Your task to perform on an android device: Open my contact list Image 0: 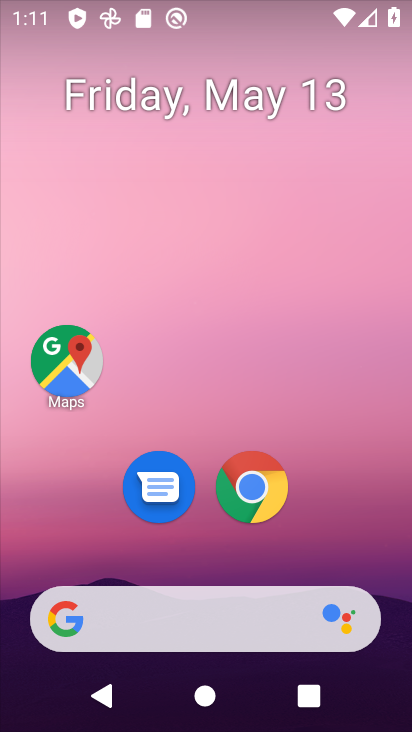
Step 0: drag from (370, 531) to (370, 81)
Your task to perform on an android device: Open my contact list Image 1: 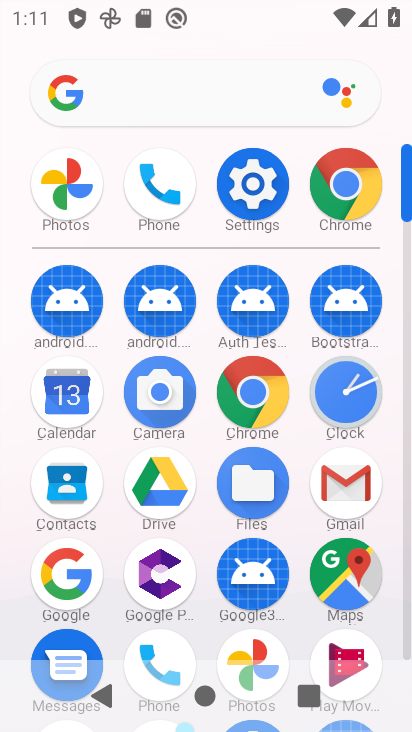
Step 1: click (67, 490)
Your task to perform on an android device: Open my contact list Image 2: 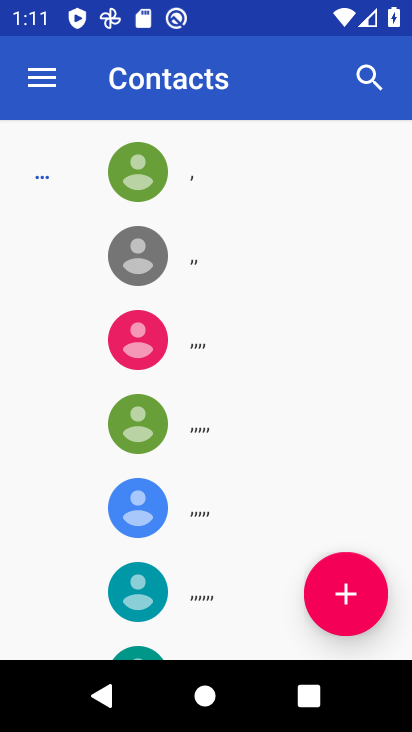
Step 2: task complete